Your task to perform on an android device: Open the calendar and show me this week's events? Image 0: 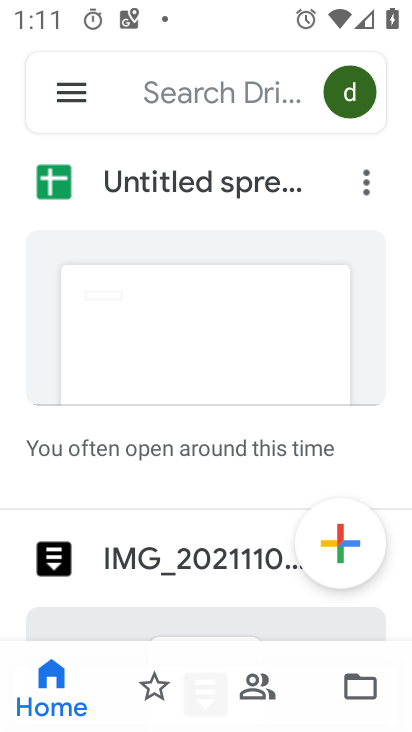
Step 0: press back button
Your task to perform on an android device: Open the calendar and show me this week's events? Image 1: 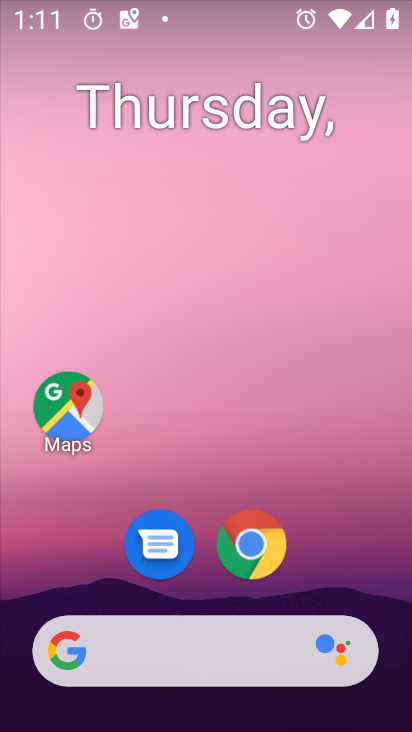
Step 1: drag from (10, 570) to (294, 193)
Your task to perform on an android device: Open the calendar and show me this week's events? Image 2: 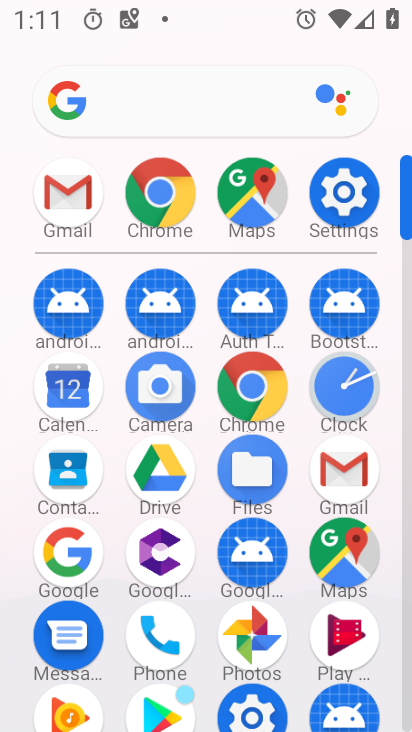
Step 2: click (67, 391)
Your task to perform on an android device: Open the calendar and show me this week's events? Image 3: 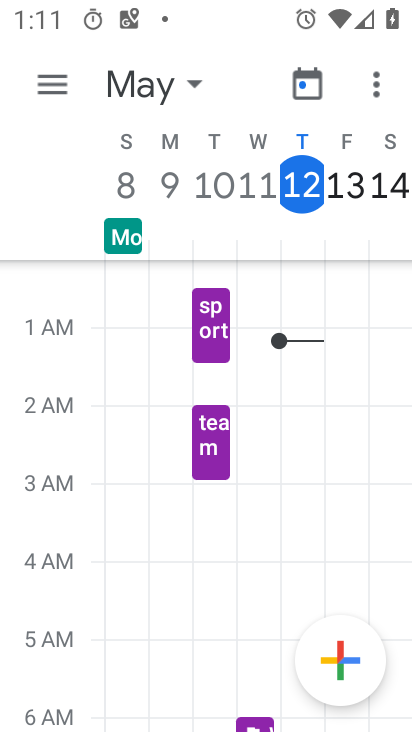
Step 3: click (154, 85)
Your task to perform on an android device: Open the calendar and show me this week's events? Image 4: 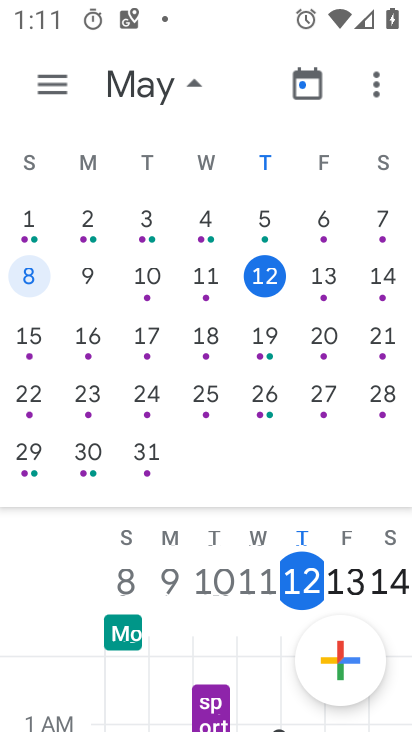
Step 4: click (82, 343)
Your task to perform on an android device: Open the calendar and show me this week's events? Image 5: 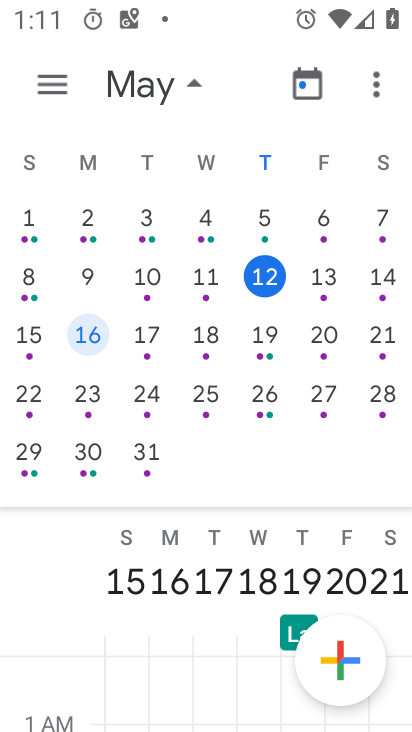
Step 5: click (146, 333)
Your task to perform on an android device: Open the calendar and show me this week's events? Image 6: 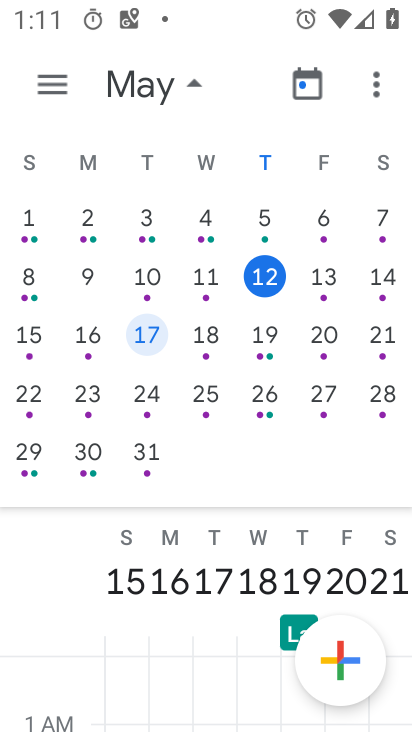
Step 6: click (215, 346)
Your task to perform on an android device: Open the calendar and show me this week's events? Image 7: 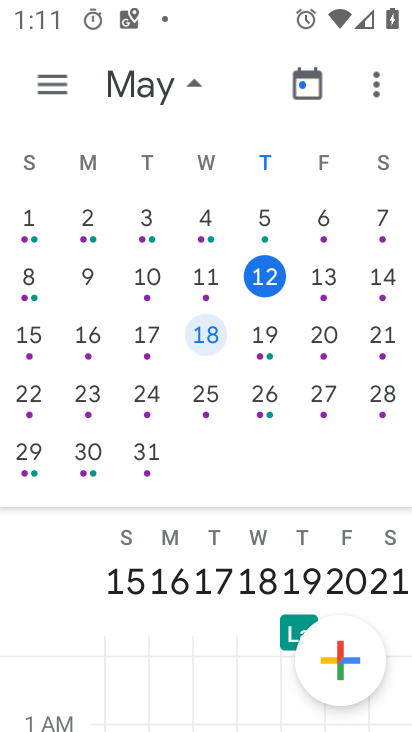
Step 7: click (272, 339)
Your task to perform on an android device: Open the calendar and show me this week's events? Image 8: 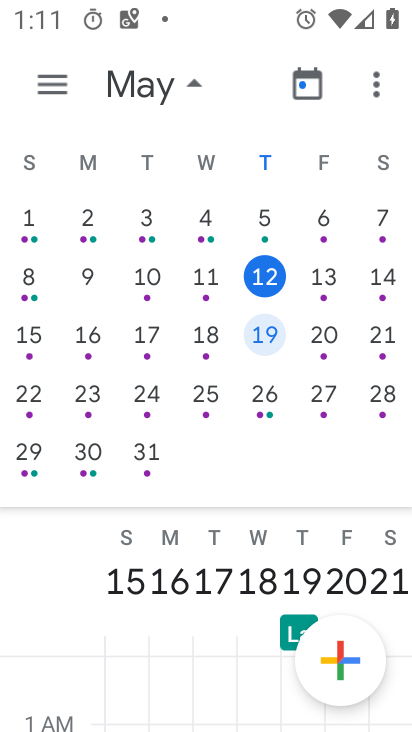
Step 8: task complete